Your task to perform on an android device: Open settings Image 0: 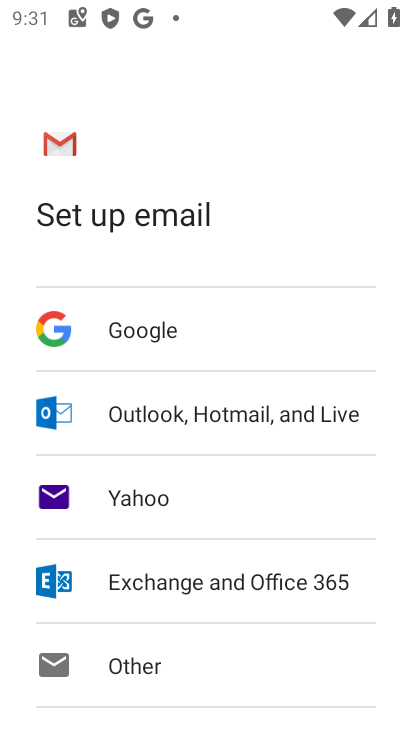
Step 0: press home button
Your task to perform on an android device: Open settings Image 1: 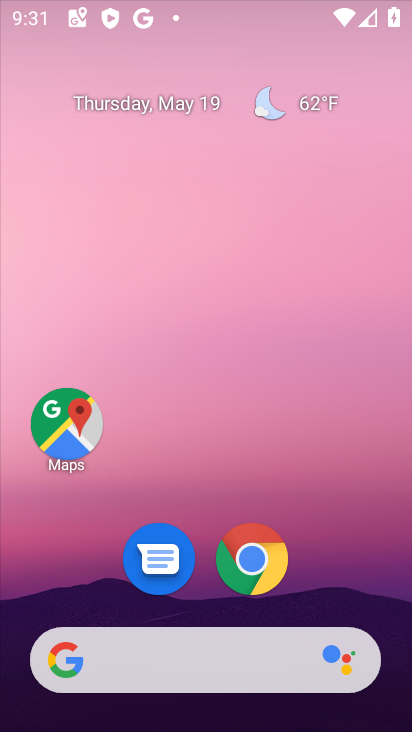
Step 1: drag from (288, 561) to (272, 123)
Your task to perform on an android device: Open settings Image 2: 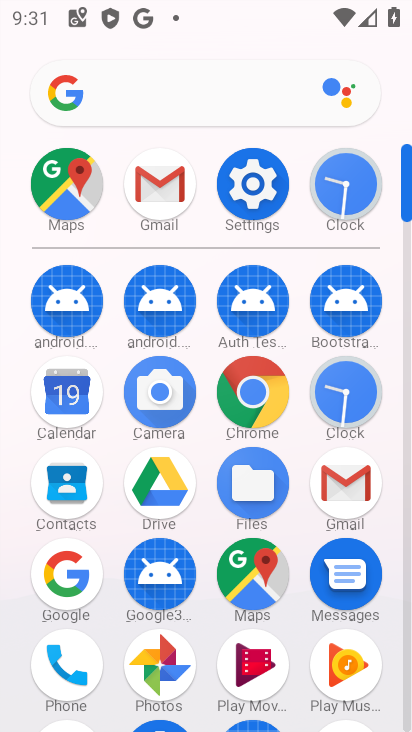
Step 2: click (258, 180)
Your task to perform on an android device: Open settings Image 3: 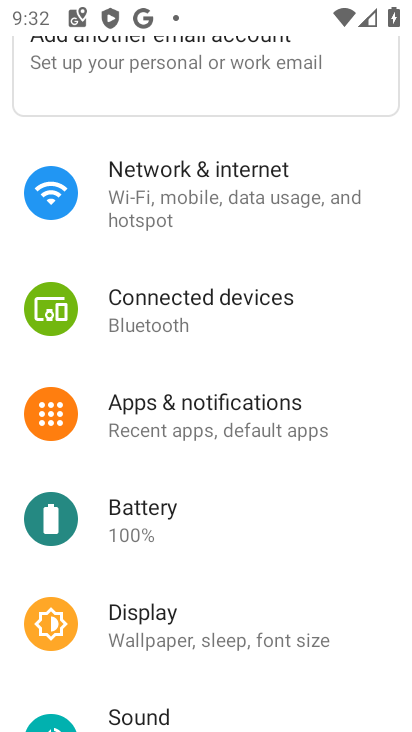
Step 3: task complete